Your task to perform on an android device: toggle data saver in the chrome app Image 0: 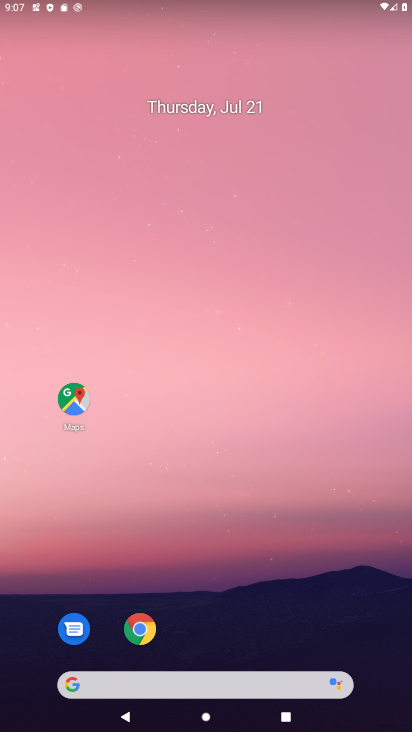
Step 0: click (156, 634)
Your task to perform on an android device: toggle data saver in the chrome app Image 1: 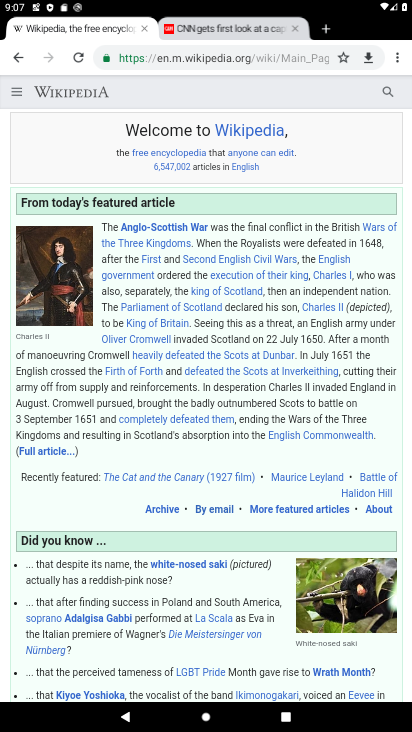
Step 1: click (393, 62)
Your task to perform on an android device: toggle data saver in the chrome app Image 2: 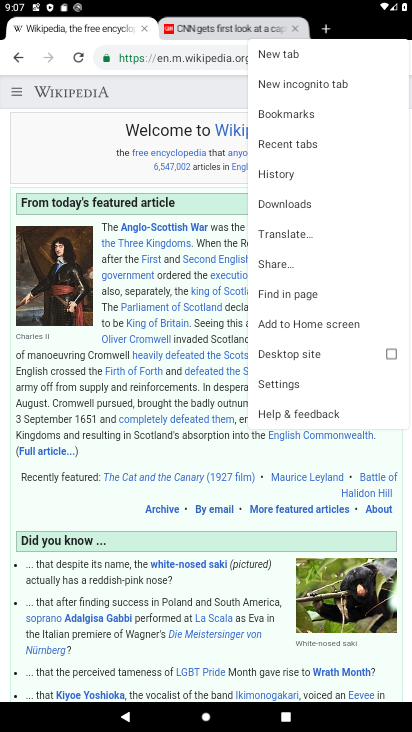
Step 2: click (291, 381)
Your task to perform on an android device: toggle data saver in the chrome app Image 3: 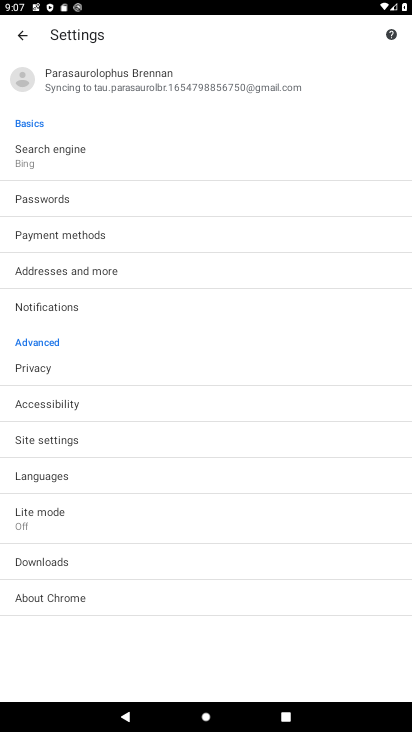
Step 3: click (35, 531)
Your task to perform on an android device: toggle data saver in the chrome app Image 4: 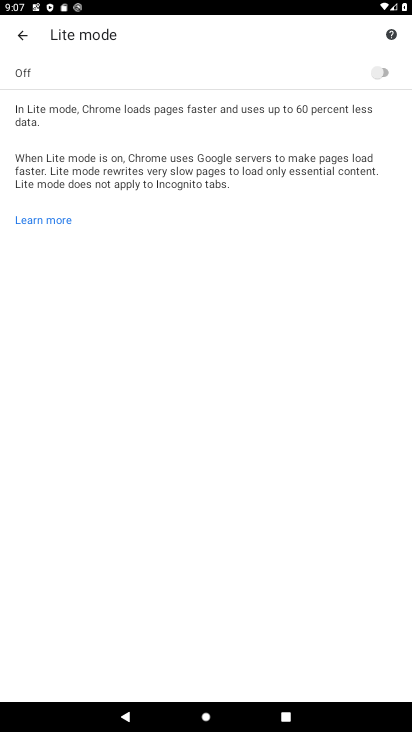
Step 4: click (388, 75)
Your task to perform on an android device: toggle data saver in the chrome app Image 5: 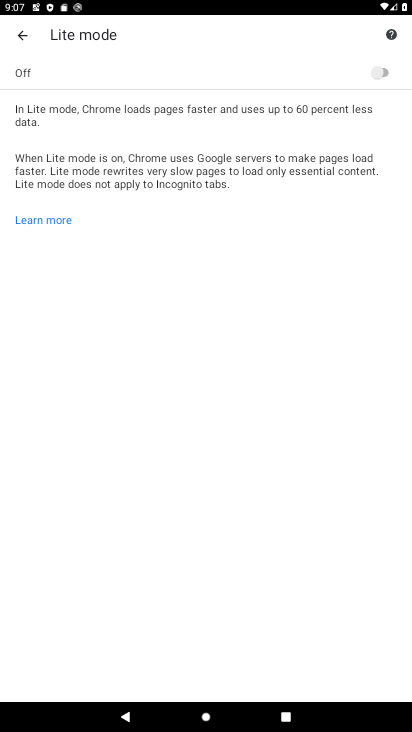
Step 5: click (388, 75)
Your task to perform on an android device: toggle data saver in the chrome app Image 6: 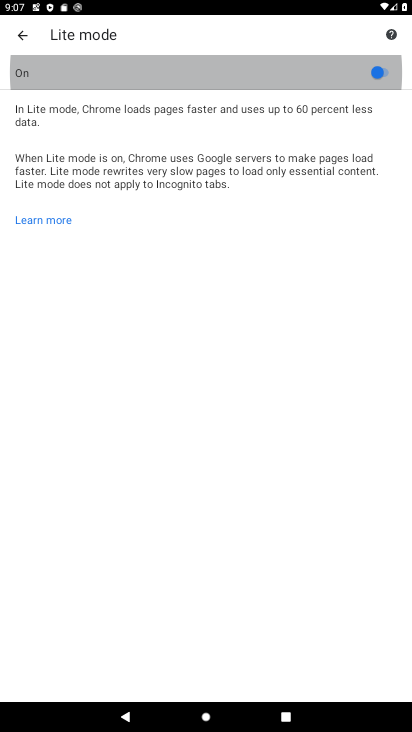
Step 6: click (388, 75)
Your task to perform on an android device: toggle data saver in the chrome app Image 7: 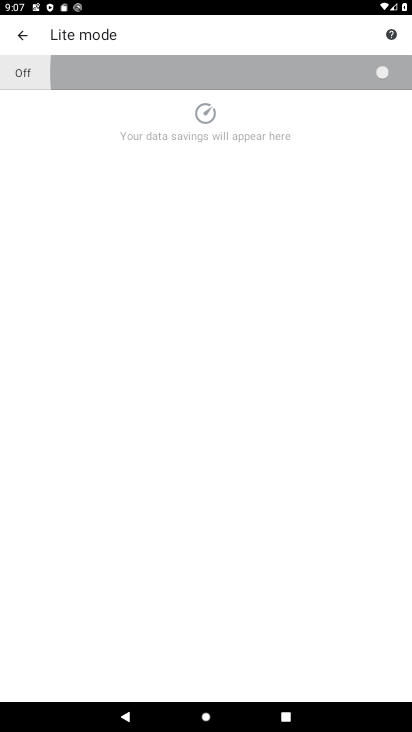
Step 7: click (388, 75)
Your task to perform on an android device: toggle data saver in the chrome app Image 8: 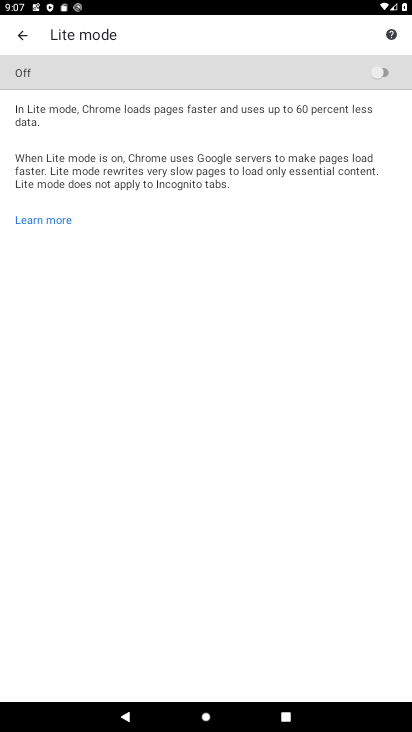
Step 8: click (388, 75)
Your task to perform on an android device: toggle data saver in the chrome app Image 9: 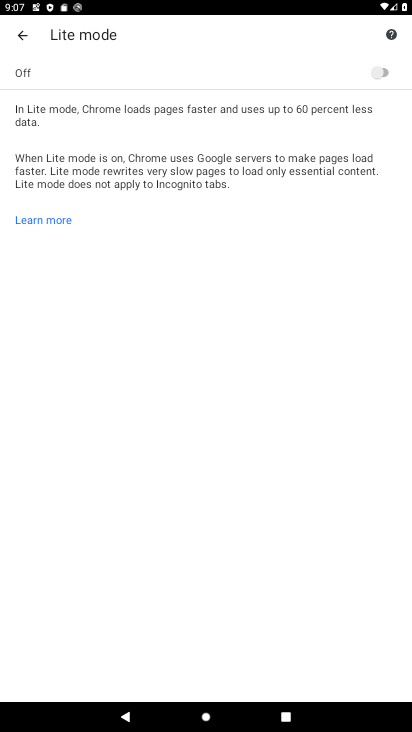
Step 9: task complete